Your task to perform on an android device: refresh tabs in the chrome app Image 0: 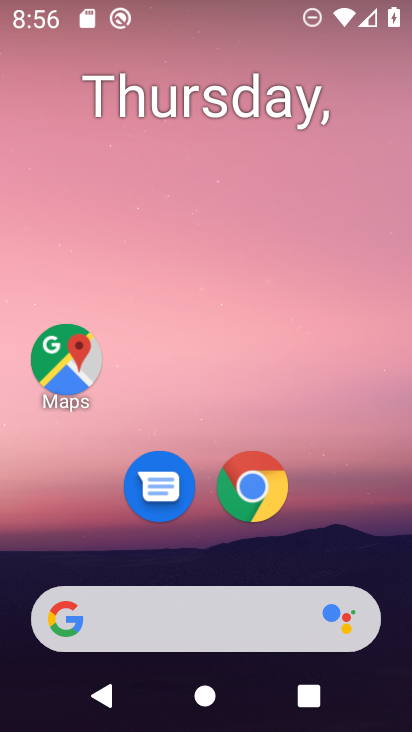
Step 0: click (271, 471)
Your task to perform on an android device: refresh tabs in the chrome app Image 1: 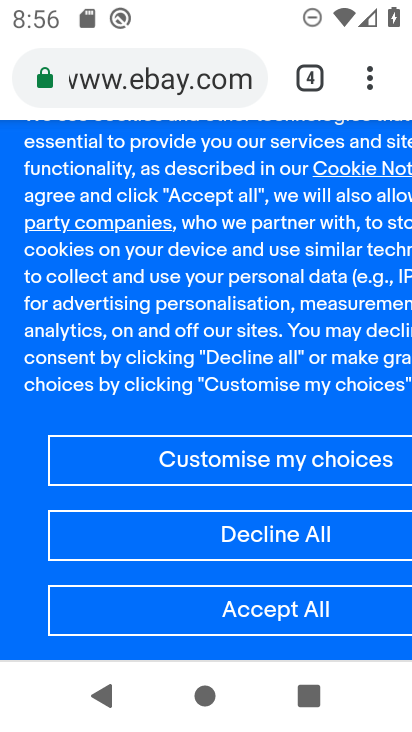
Step 1: click (364, 82)
Your task to perform on an android device: refresh tabs in the chrome app Image 2: 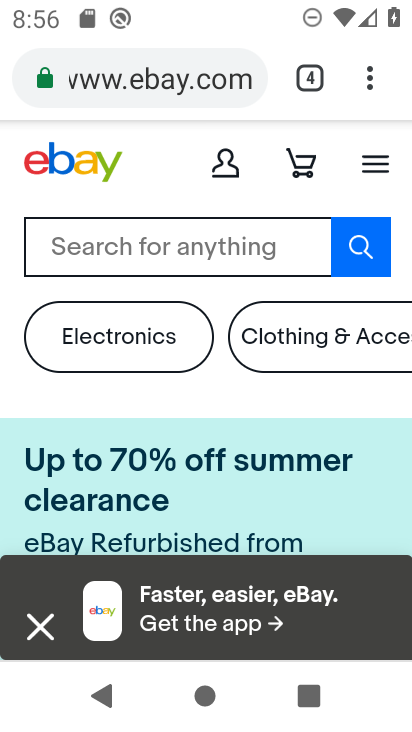
Step 2: task complete